Your task to perform on an android device: turn off sleep mode Image 0: 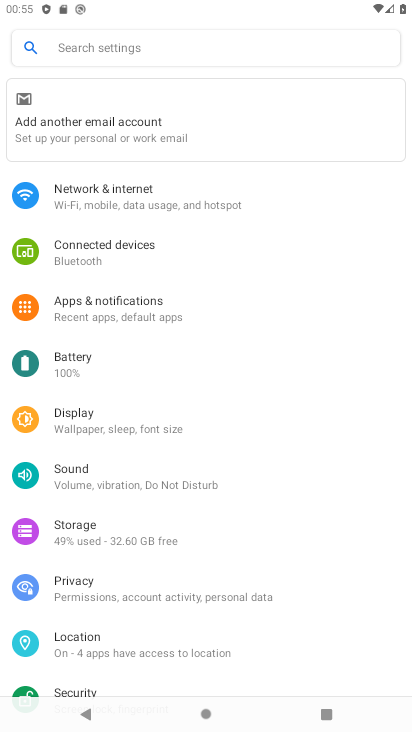
Step 0: press home button
Your task to perform on an android device: turn off sleep mode Image 1: 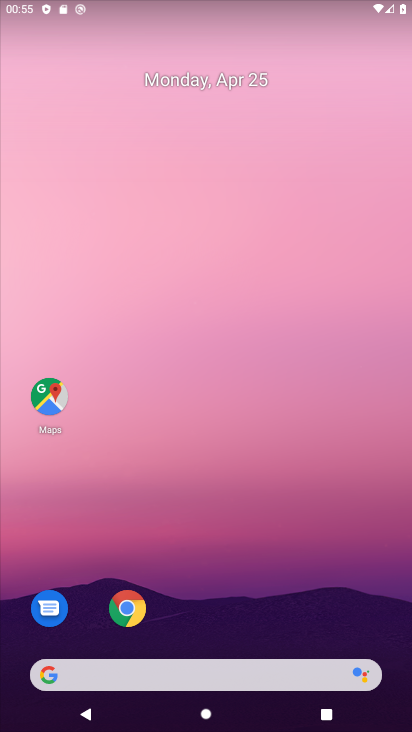
Step 1: drag from (236, 633) to (183, 115)
Your task to perform on an android device: turn off sleep mode Image 2: 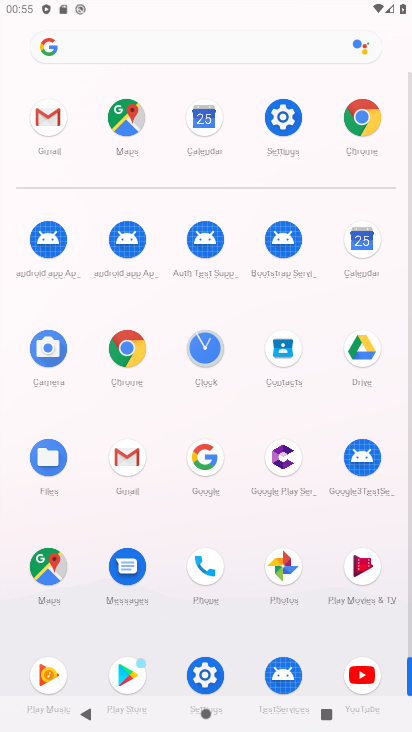
Step 2: click (283, 129)
Your task to perform on an android device: turn off sleep mode Image 3: 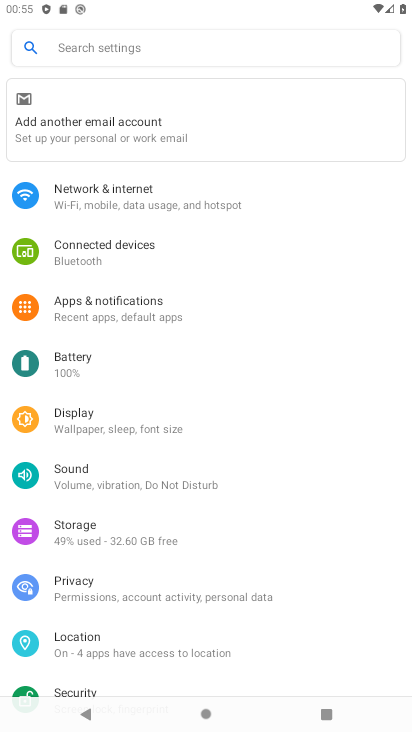
Step 3: click (156, 434)
Your task to perform on an android device: turn off sleep mode Image 4: 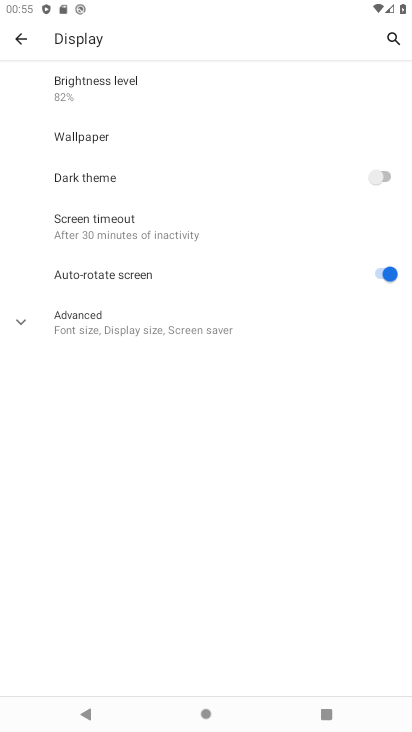
Step 4: task complete